Your task to perform on an android device: read, delete, or share a saved page in the chrome app Image 0: 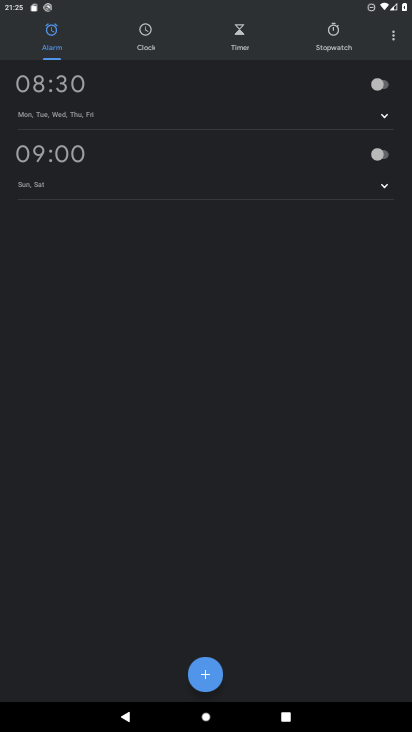
Step 0: press home button
Your task to perform on an android device: read, delete, or share a saved page in the chrome app Image 1: 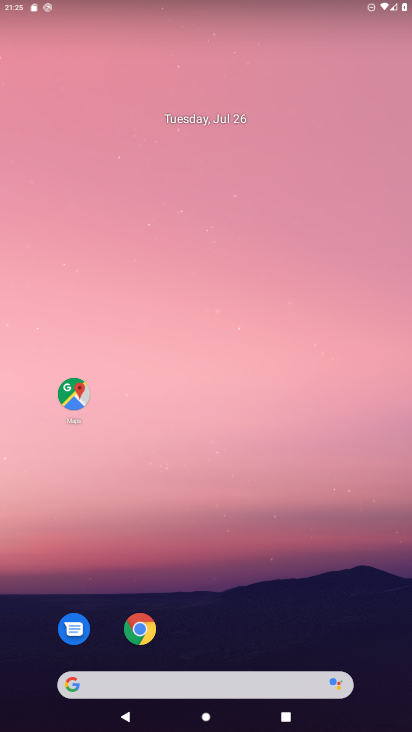
Step 1: drag from (244, 650) to (232, 136)
Your task to perform on an android device: read, delete, or share a saved page in the chrome app Image 2: 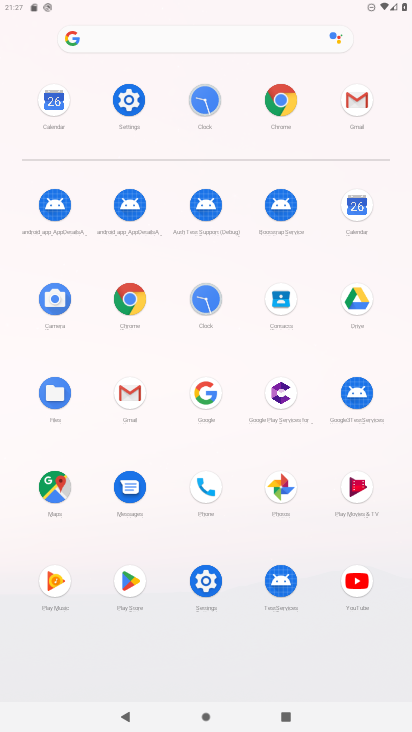
Step 2: click (138, 284)
Your task to perform on an android device: read, delete, or share a saved page in the chrome app Image 3: 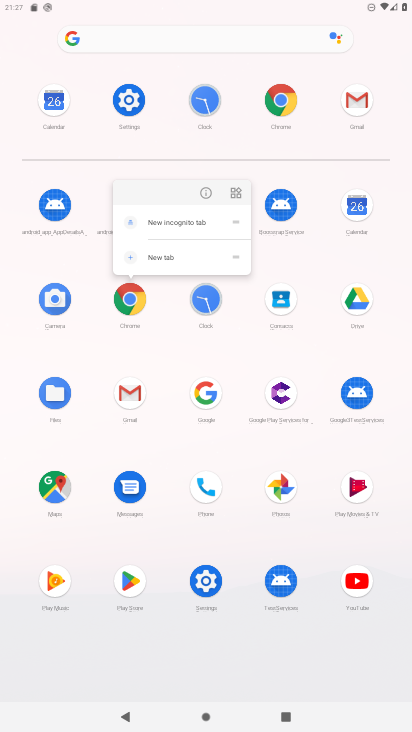
Step 3: click (127, 313)
Your task to perform on an android device: read, delete, or share a saved page in the chrome app Image 4: 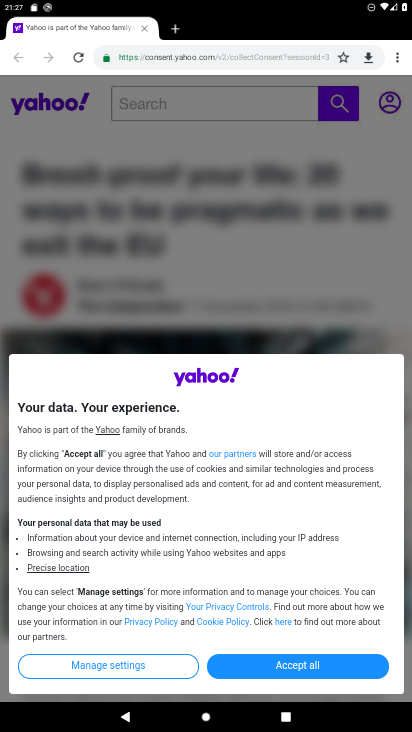
Step 4: drag from (399, 55) to (258, 206)
Your task to perform on an android device: read, delete, or share a saved page in the chrome app Image 5: 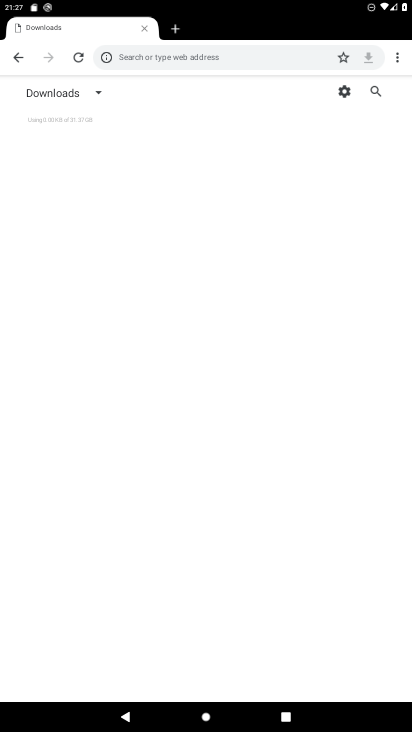
Step 5: click (87, 88)
Your task to perform on an android device: read, delete, or share a saved page in the chrome app Image 6: 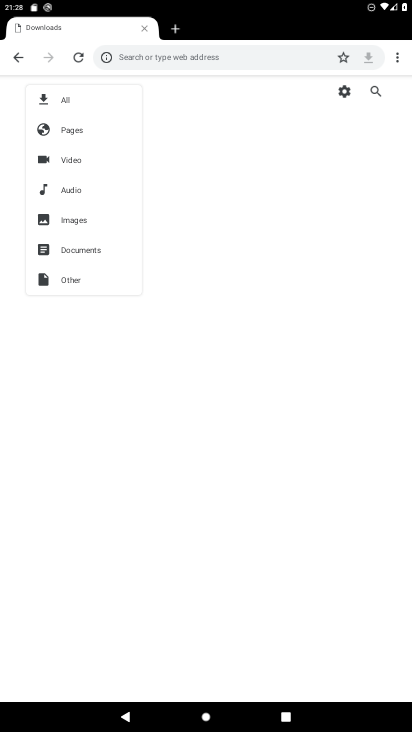
Step 6: click (75, 127)
Your task to perform on an android device: read, delete, or share a saved page in the chrome app Image 7: 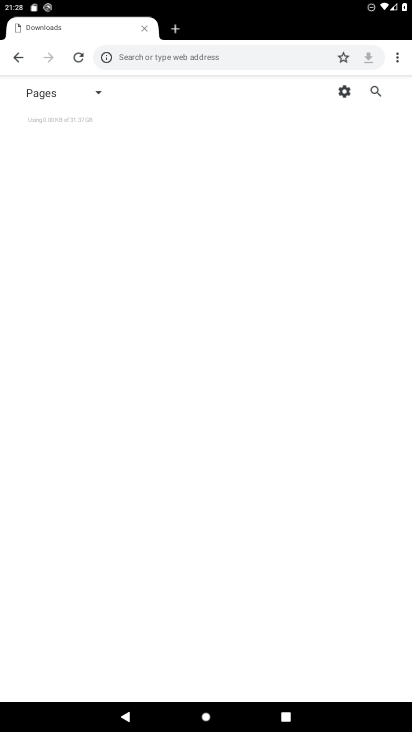
Step 7: task complete